Your task to perform on an android device: delete the emails in spam in the gmail app Image 0: 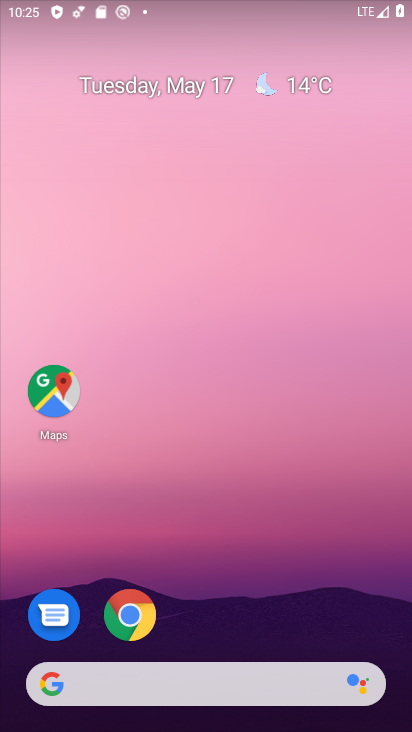
Step 0: press home button
Your task to perform on an android device: delete the emails in spam in the gmail app Image 1: 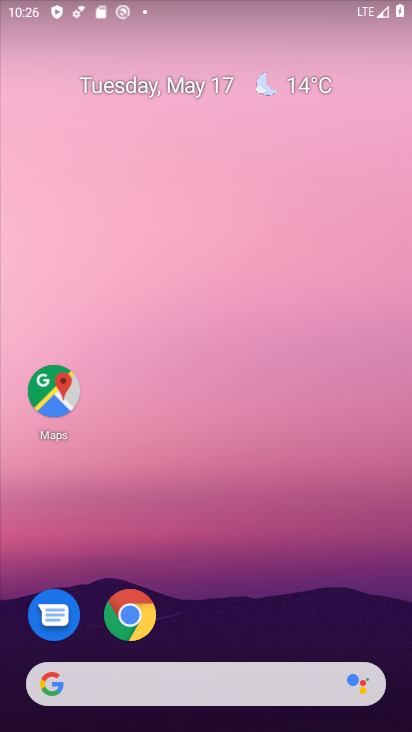
Step 1: drag from (220, 688) to (318, 218)
Your task to perform on an android device: delete the emails in spam in the gmail app Image 2: 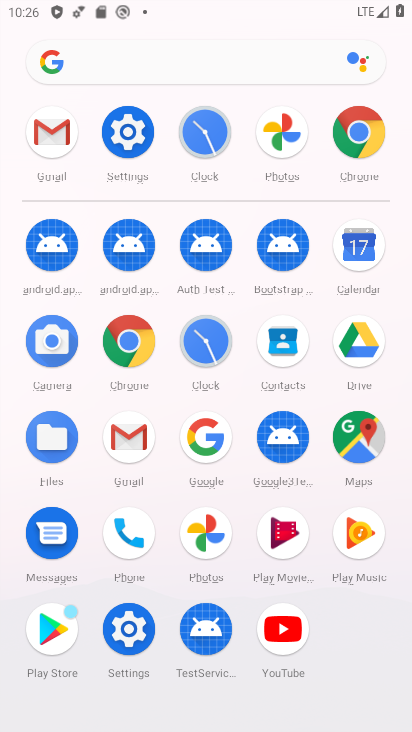
Step 2: click (61, 138)
Your task to perform on an android device: delete the emails in spam in the gmail app Image 3: 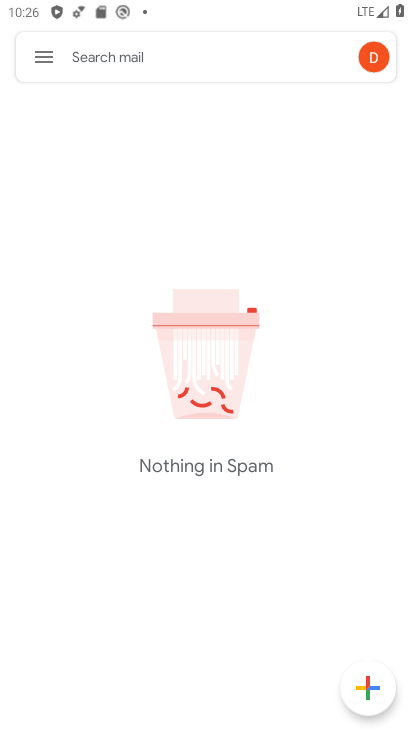
Step 3: task complete